Your task to perform on an android device: change the clock style Image 0: 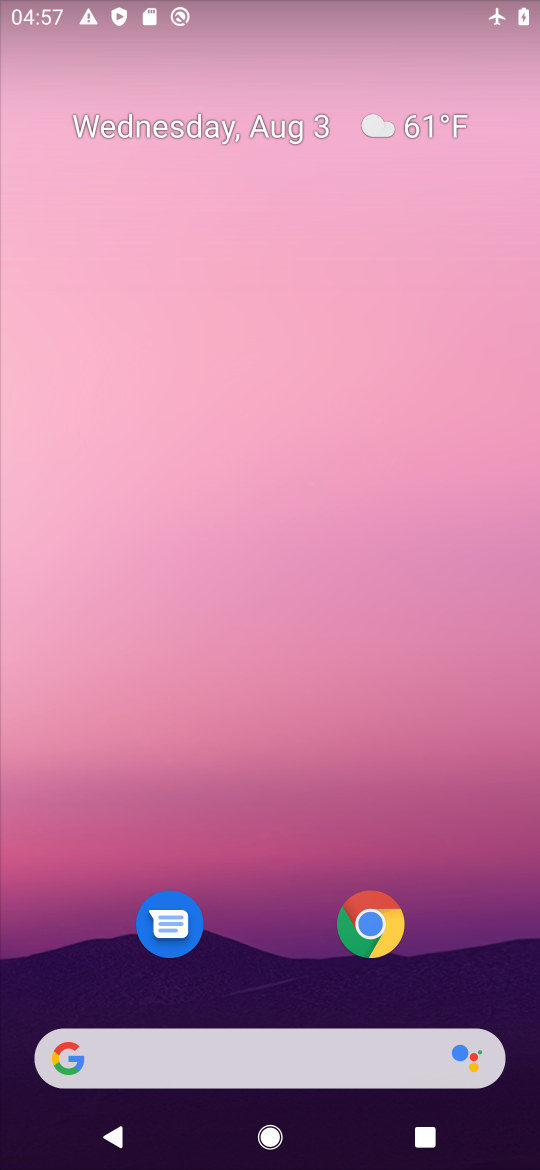
Step 0: drag from (192, 765) to (115, 423)
Your task to perform on an android device: change the clock style Image 1: 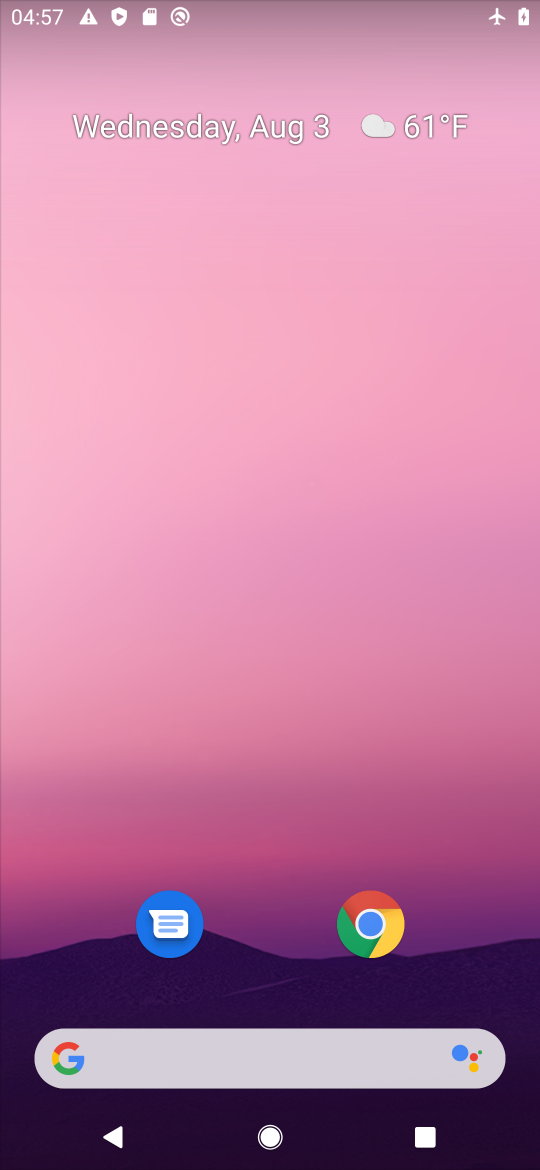
Step 1: drag from (238, 984) to (214, 371)
Your task to perform on an android device: change the clock style Image 2: 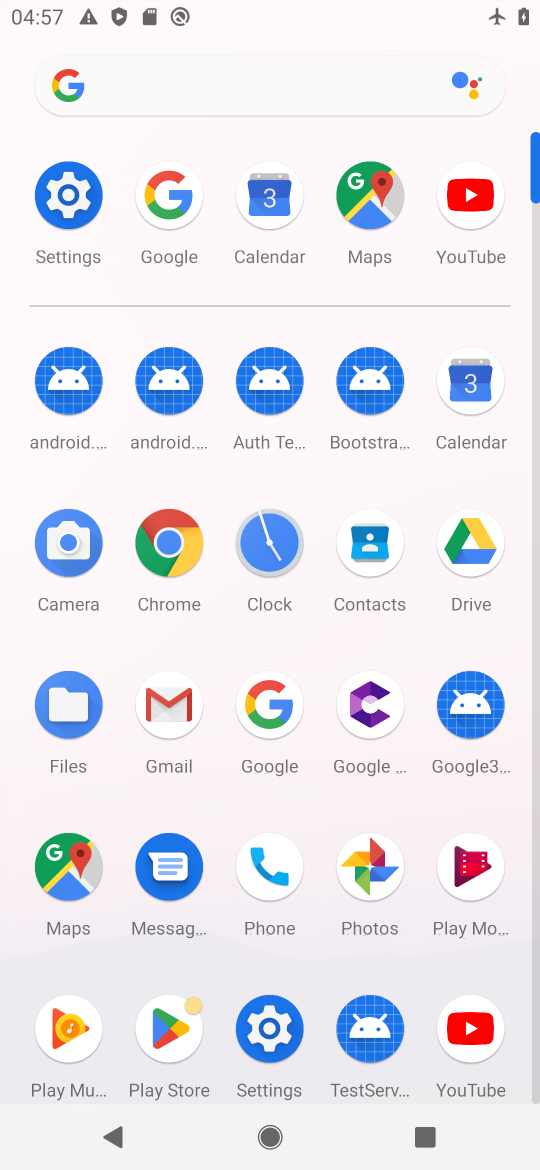
Step 2: click (284, 534)
Your task to perform on an android device: change the clock style Image 3: 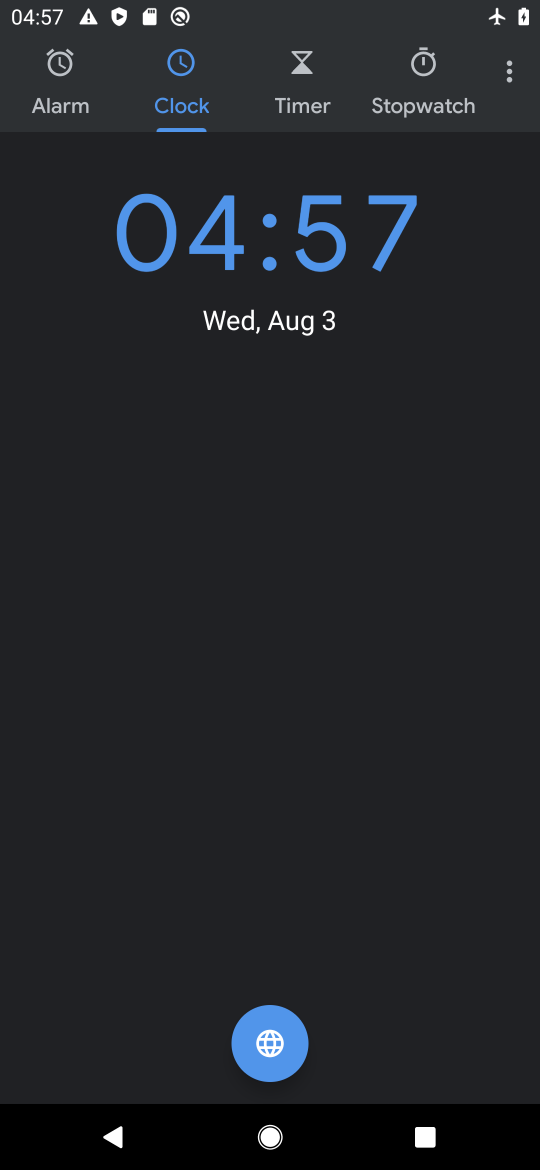
Step 3: click (497, 81)
Your task to perform on an android device: change the clock style Image 4: 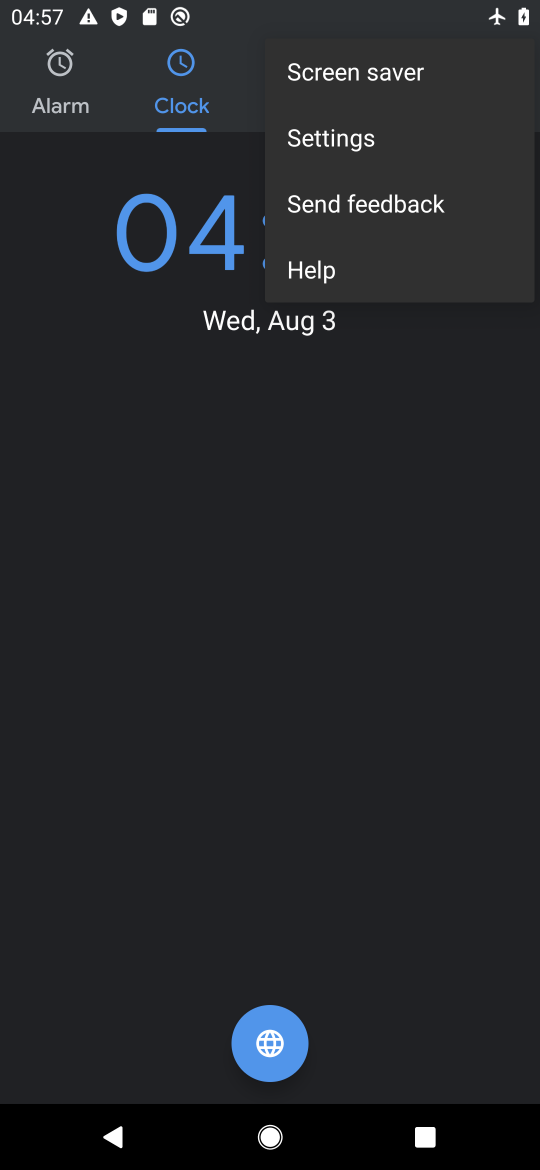
Step 4: click (396, 131)
Your task to perform on an android device: change the clock style Image 5: 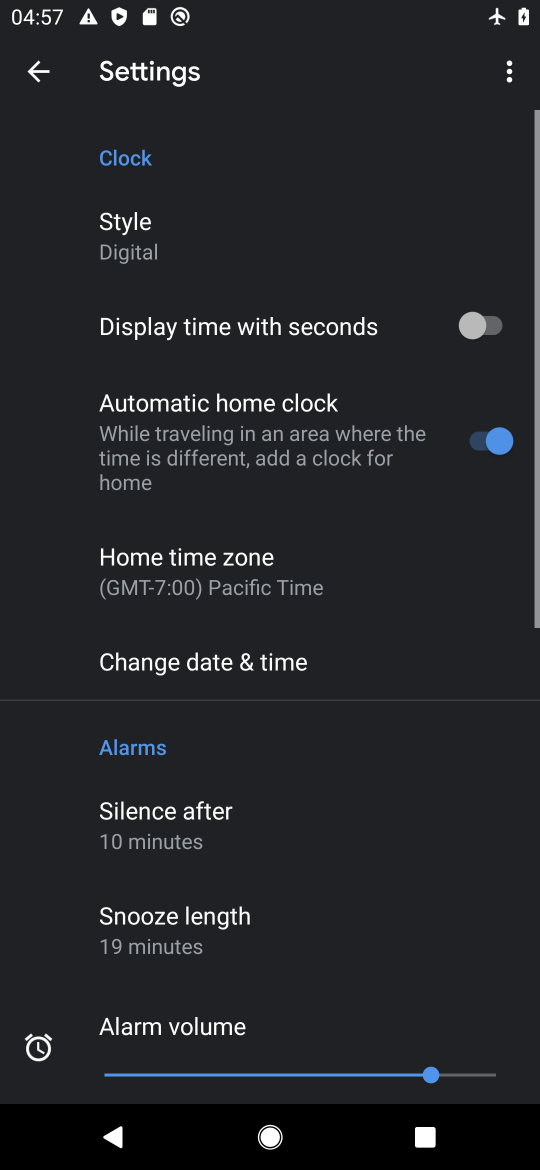
Step 5: click (173, 223)
Your task to perform on an android device: change the clock style Image 6: 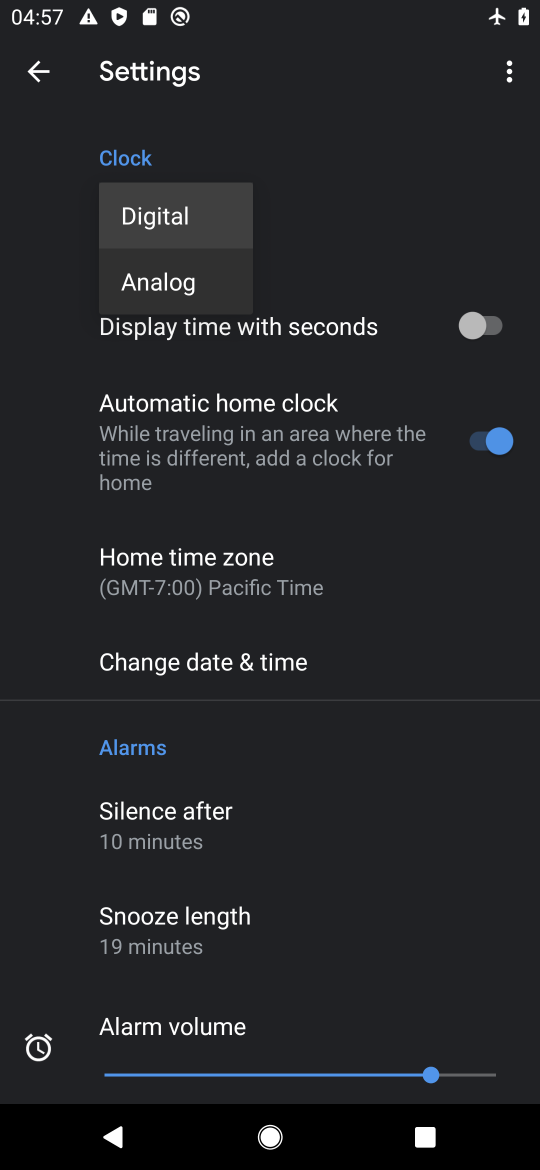
Step 6: click (173, 262)
Your task to perform on an android device: change the clock style Image 7: 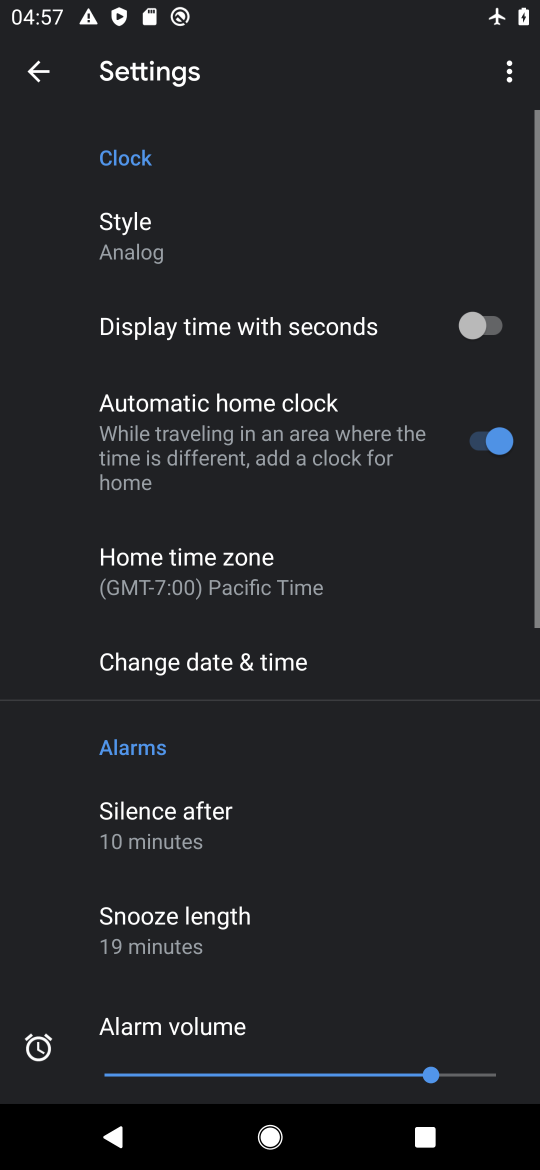
Step 7: task complete